Your task to perform on an android device: turn smart compose on in the gmail app Image 0: 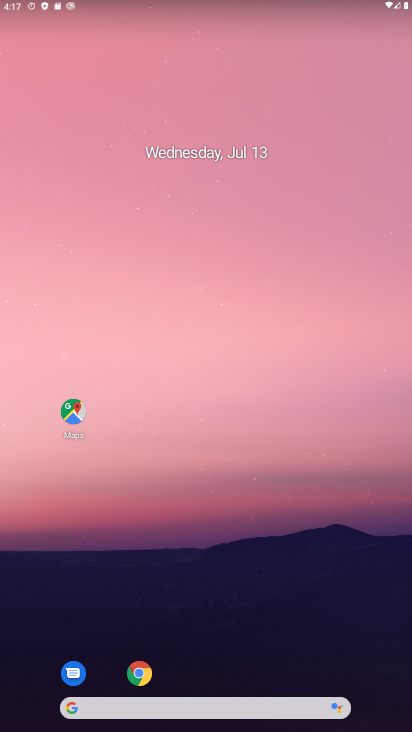
Step 0: drag from (234, 410) to (192, 147)
Your task to perform on an android device: turn smart compose on in the gmail app Image 1: 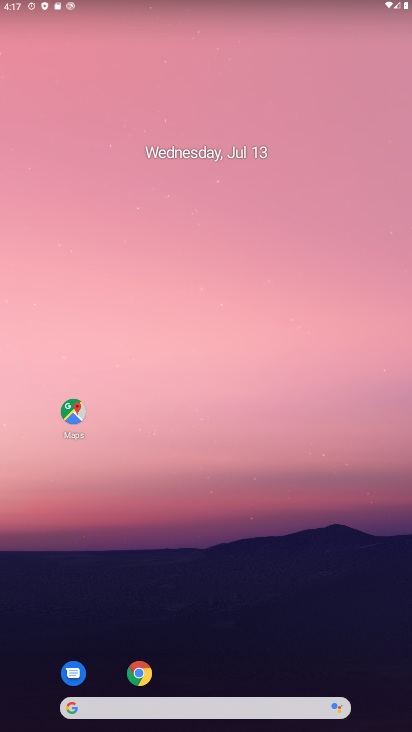
Step 1: drag from (227, 520) to (158, 142)
Your task to perform on an android device: turn smart compose on in the gmail app Image 2: 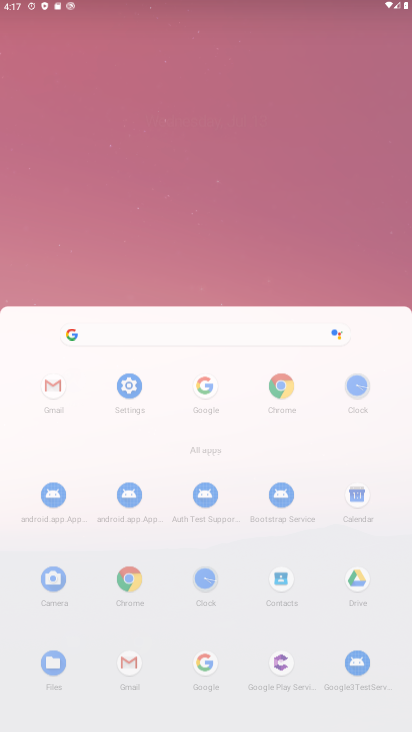
Step 2: drag from (234, 508) to (169, 62)
Your task to perform on an android device: turn smart compose on in the gmail app Image 3: 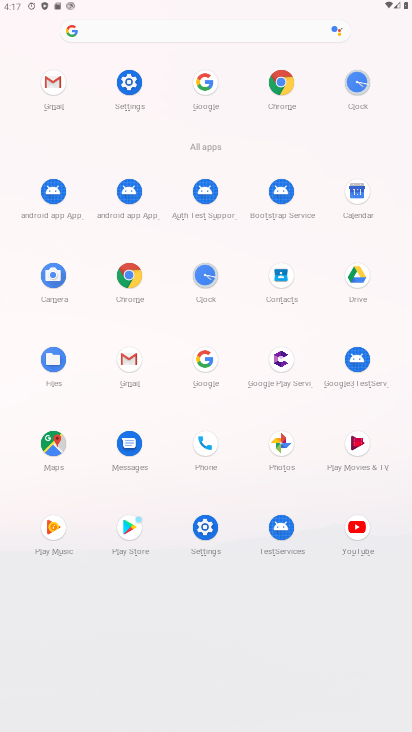
Step 3: click (121, 338)
Your task to perform on an android device: turn smart compose on in the gmail app Image 4: 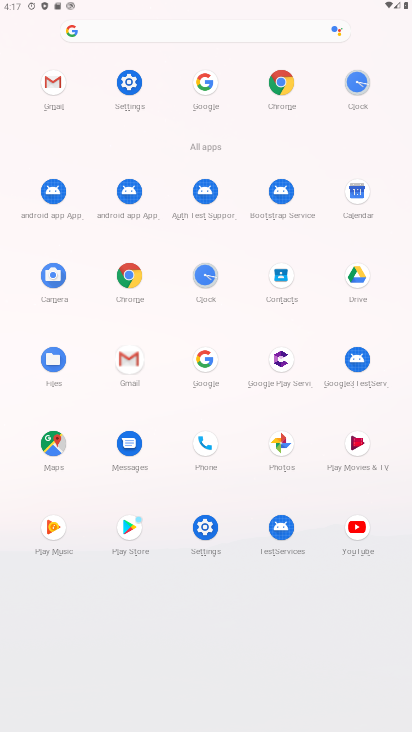
Step 4: click (129, 358)
Your task to perform on an android device: turn smart compose on in the gmail app Image 5: 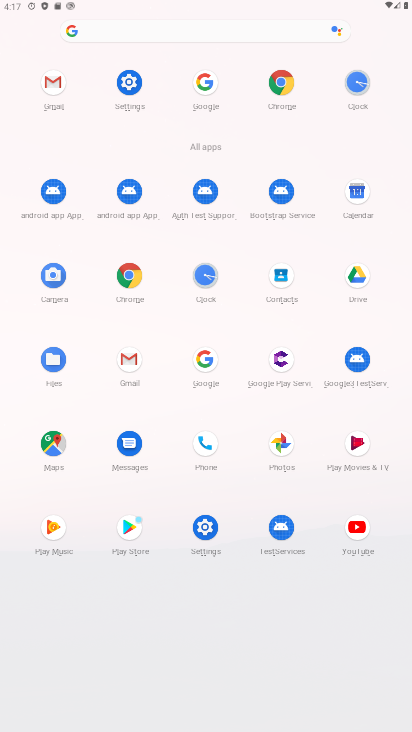
Step 5: click (131, 357)
Your task to perform on an android device: turn smart compose on in the gmail app Image 6: 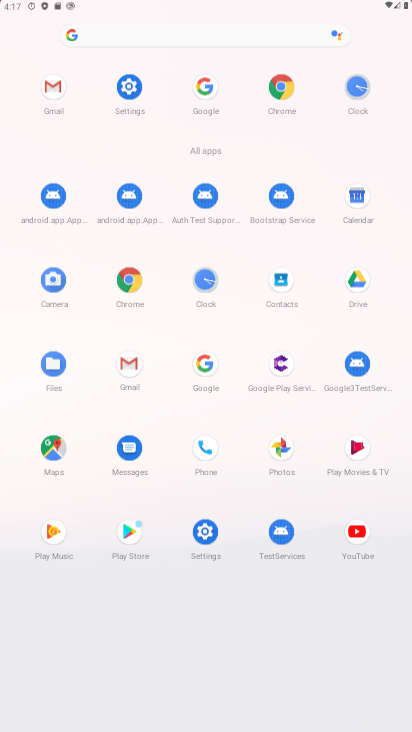
Step 6: click (131, 357)
Your task to perform on an android device: turn smart compose on in the gmail app Image 7: 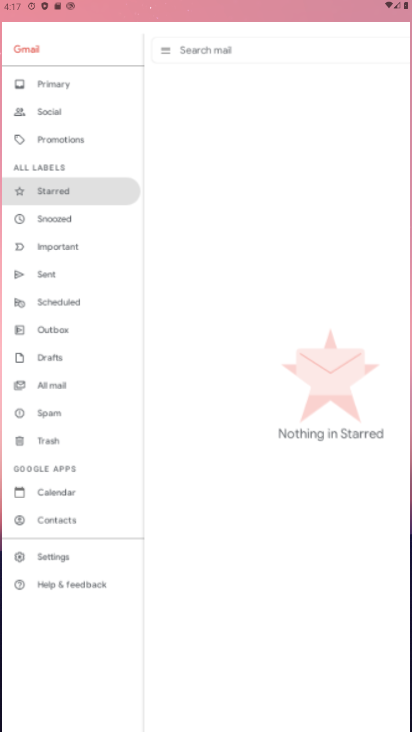
Step 7: click (132, 353)
Your task to perform on an android device: turn smart compose on in the gmail app Image 8: 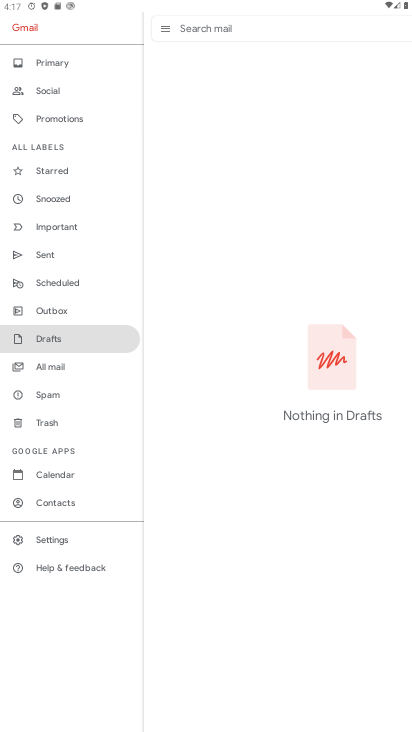
Step 8: click (52, 540)
Your task to perform on an android device: turn smart compose on in the gmail app Image 9: 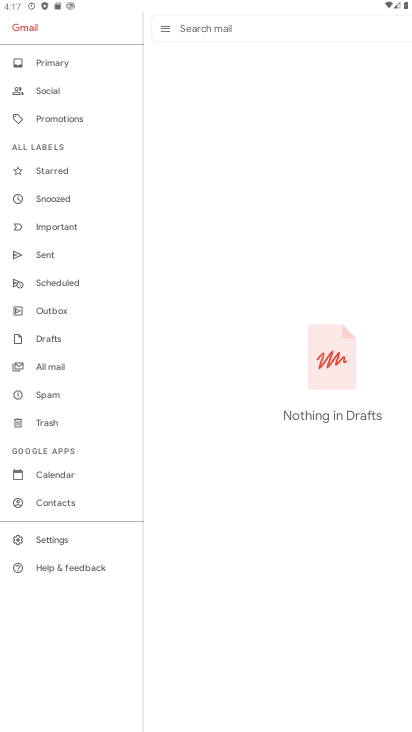
Step 9: click (52, 540)
Your task to perform on an android device: turn smart compose on in the gmail app Image 10: 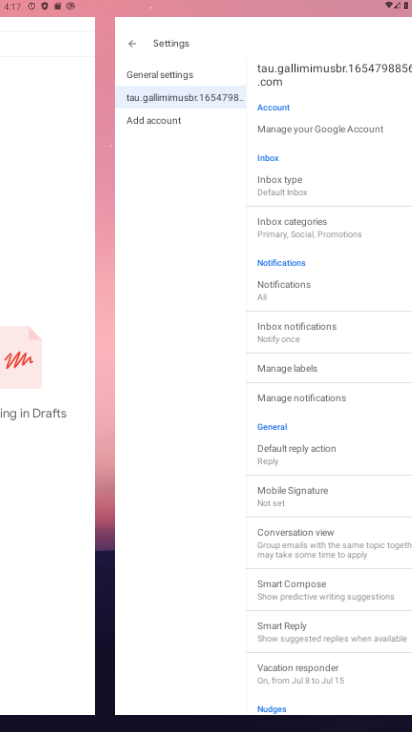
Step 10: click (54, 540)
Your task to perform on an android device: turn smart compose on in the gmail app Image 11: 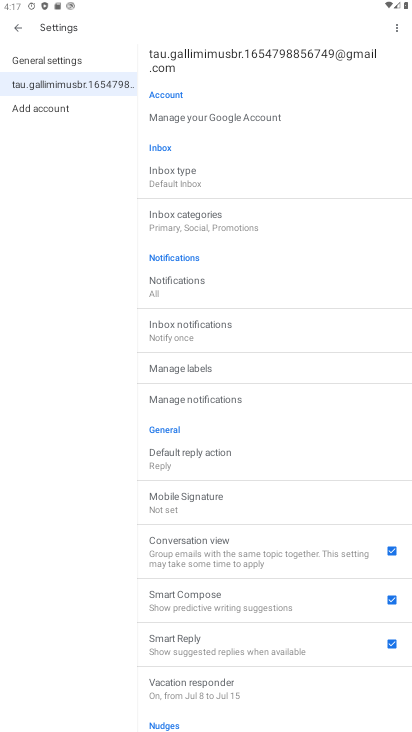
Step 11: click (198, 606)
Your task to perform on an android device: turn smart compose on in the gmail app Image 12: 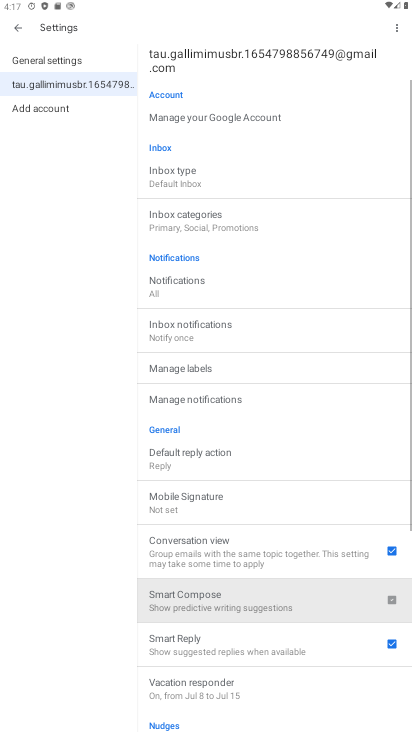
Step 12: click (207, 597)
Your task to perform on an android device: turn smart compose on in the gmail app Image 13: 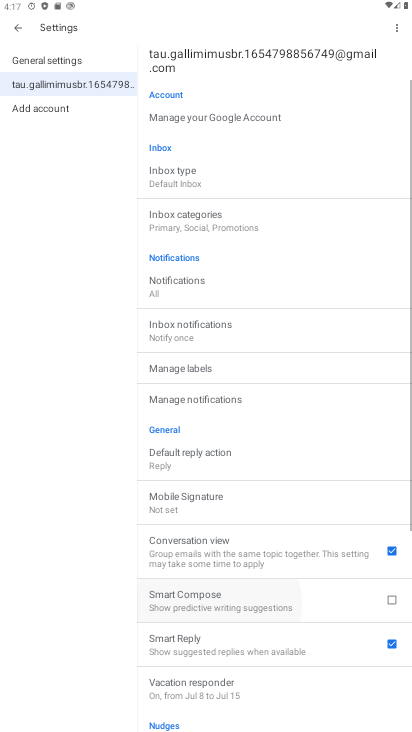
Step 13: click (210, 600)
Your task to perform on an android device: turn smart compose on in the gmail app Image 14: 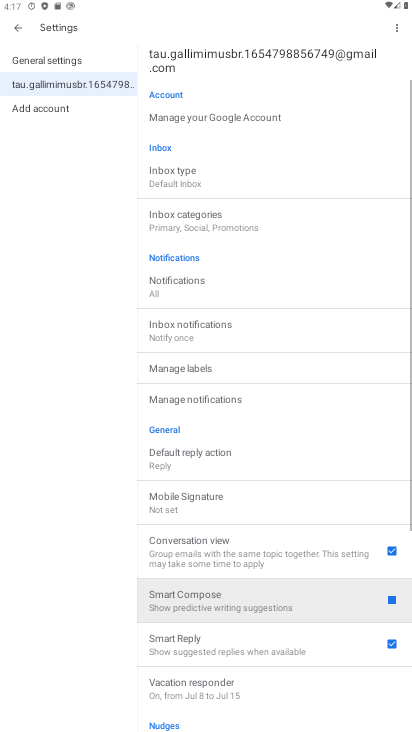
Step 14: click (213, 601)
Your task to perform on an android device: turn smart compose on in the gmail app Image 15: 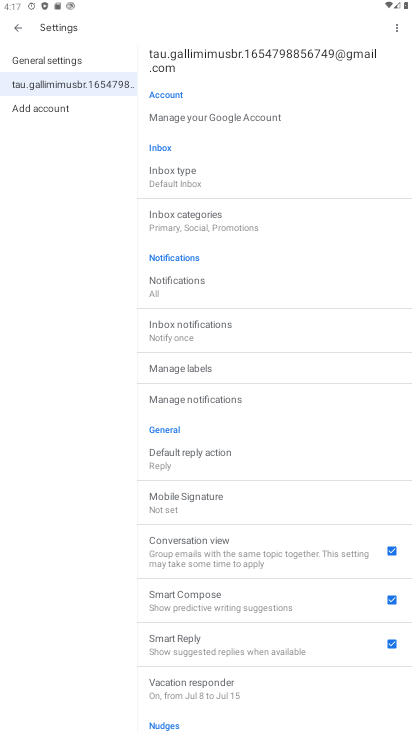
Step 15: task complete